Your task to perform on an android device: check battery use Image 0: 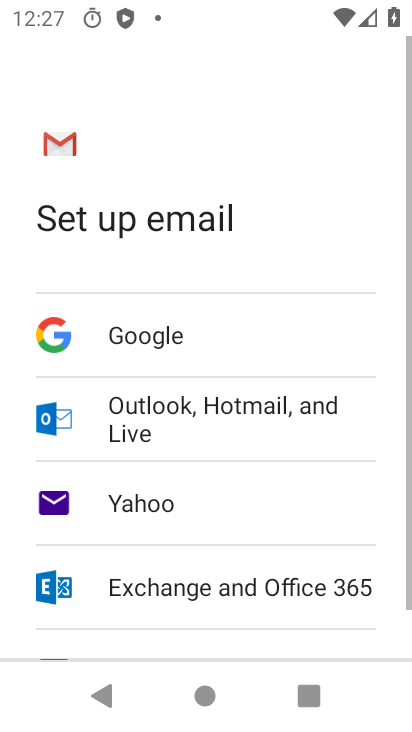
Step 0: press back button
Your task to perform on an android device: check battery use Image 1: 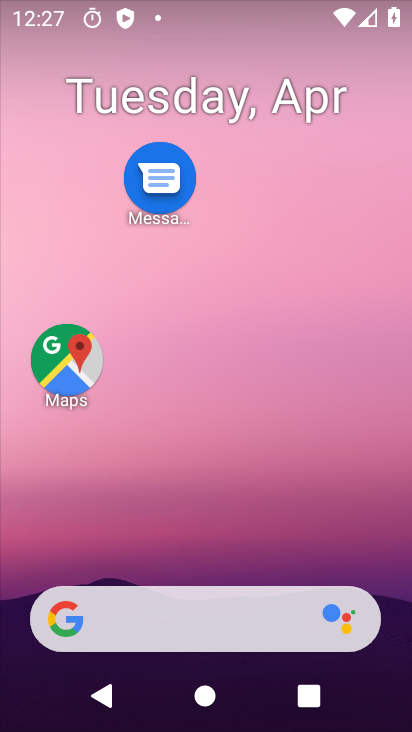
Step 1: drag from (202, 724) to (201, 72)
Your task to perform on an android device: check battery use Image 2: 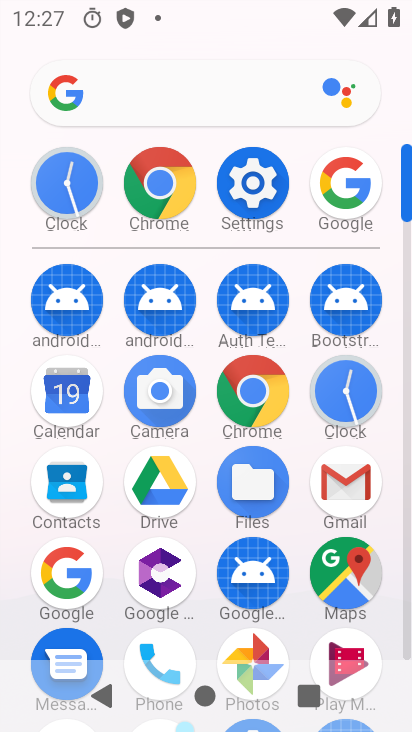
Step 2: click (243, 187)
Your task to perform on an android device: check battery use Image 3: 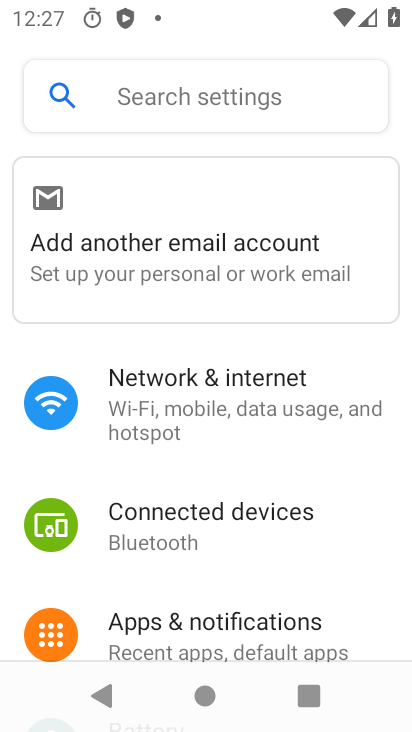
Step 3: drag from (257, 634) to (256, 112)
Your task to perform on an android device: check battery use Image 4: 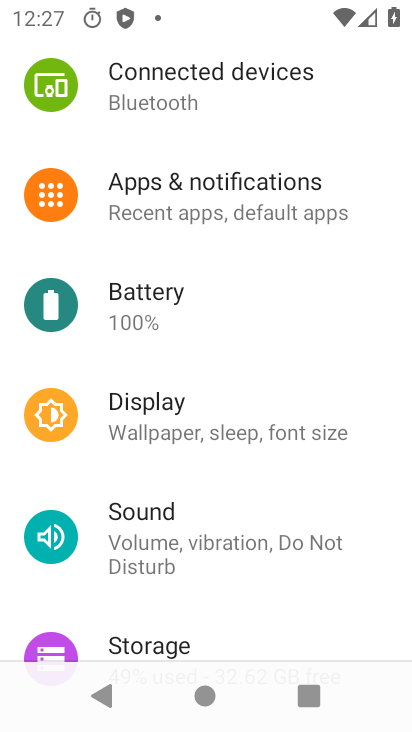
Step 4: click (135, 307)
Your task to perform on an android device: check battery use Image 5: 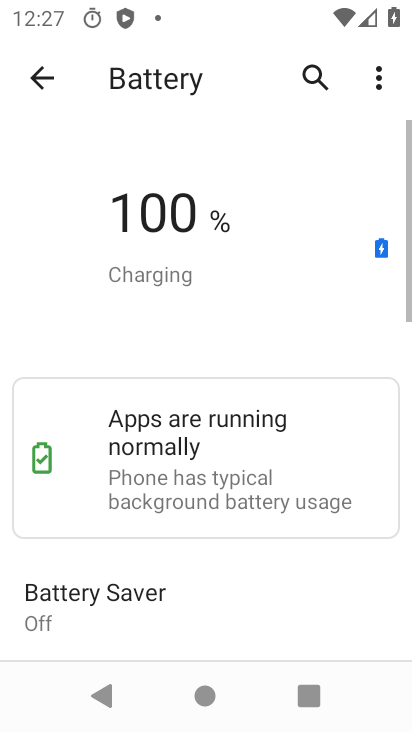
Step 5: click (380, 72)
Your task to perform on an android device: check battery use Image 6: 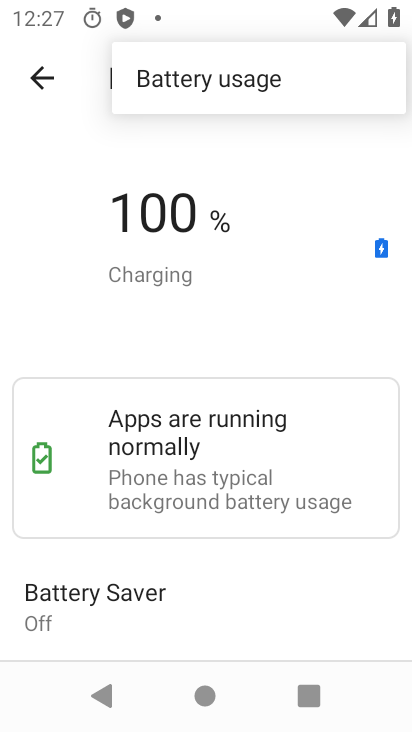
Step 6: click (198, 74)
Your task to perform on an android device: check battery use Image 7: 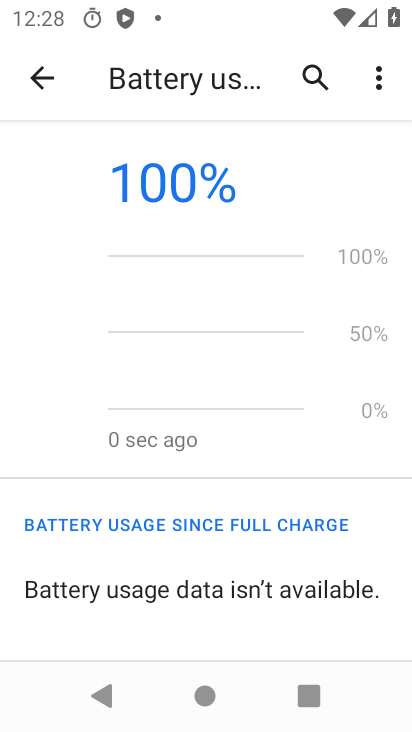
Step 7: task complete